Your task to perform on an android device: add a contact in the contacts app Image 0: 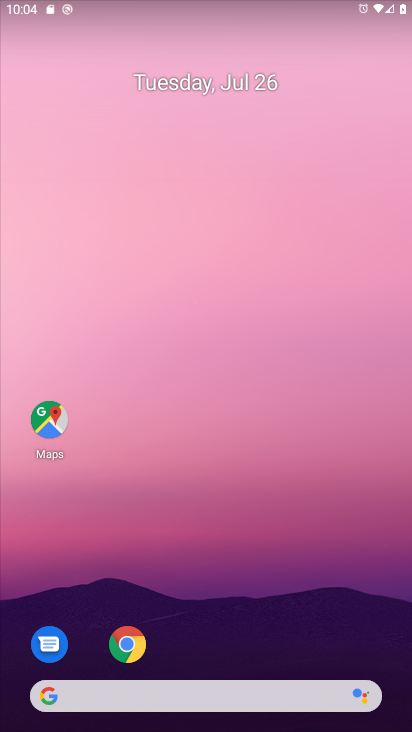
Step 0: drag from (214, 673) to (212, 246)
Your task to perform on an android device: add a contact in the contacts app Image 1: 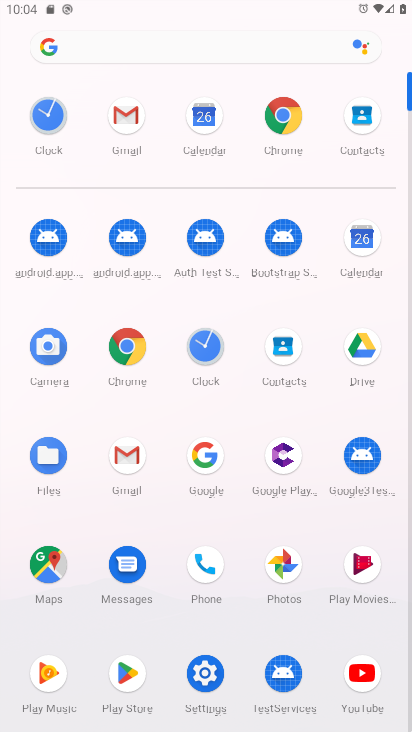
Step 1: click (285, 368)
Your task to perform on an android device: add a contact in the contacts app Image 2: 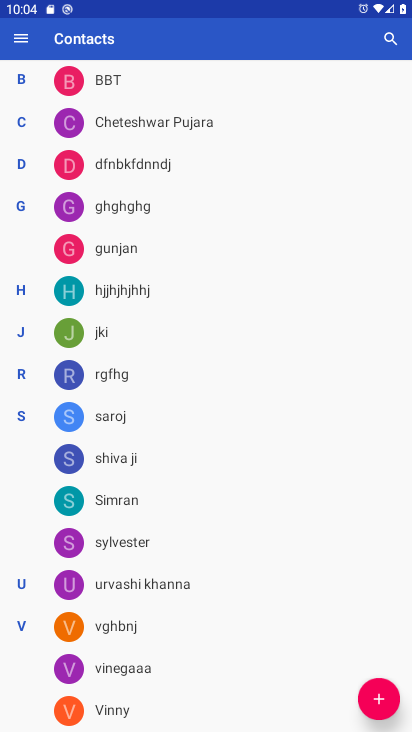
Step 2: click (382, 689)
Your task to perform on an android device: add a contact in the contacts app Image 3: 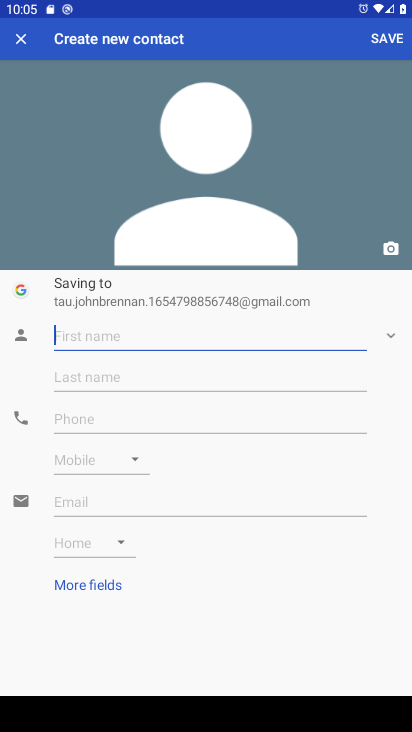
Step 3: type "statone"
Your task to perform on an android device: add a contact in the contacts app Image 4: 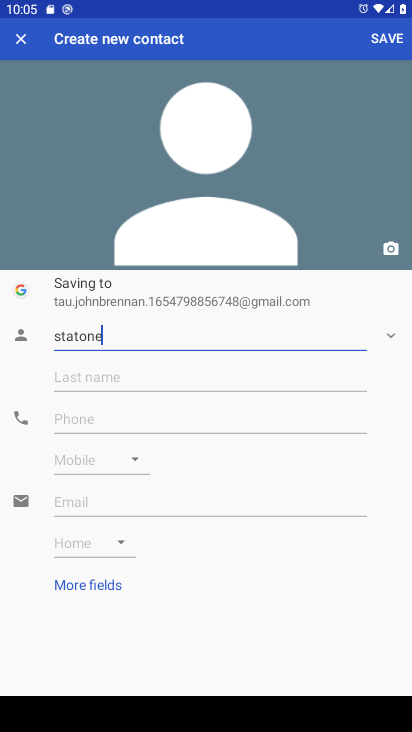
Step 4: click (390, 38)
Your task to perform on an android device: add a contact in the contacts app Image 5: 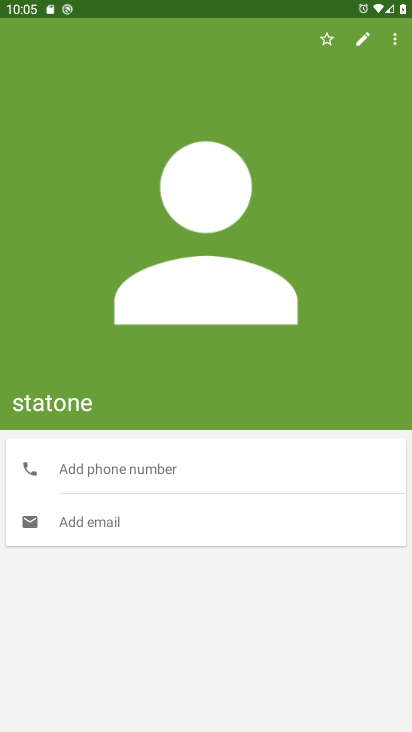
Step 5: task complete